Your task to perform on an android device: Open calendar and show me the first week of next month Image 0: 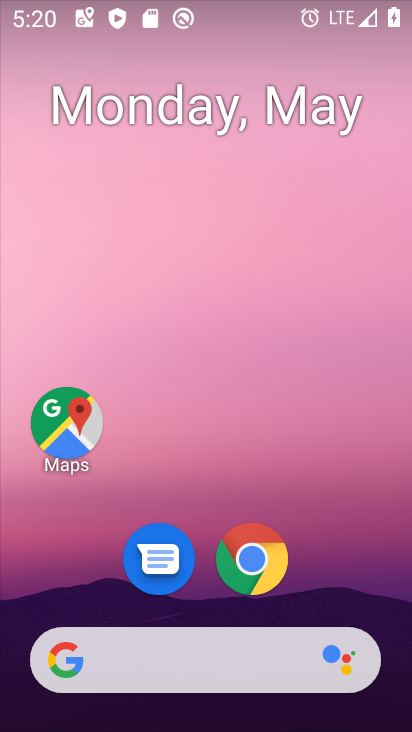
Step 0: drag from (287, 223) to (330, 2)
Your task to perform on an android device: Open calendar and show me the first week of next month Image 1: 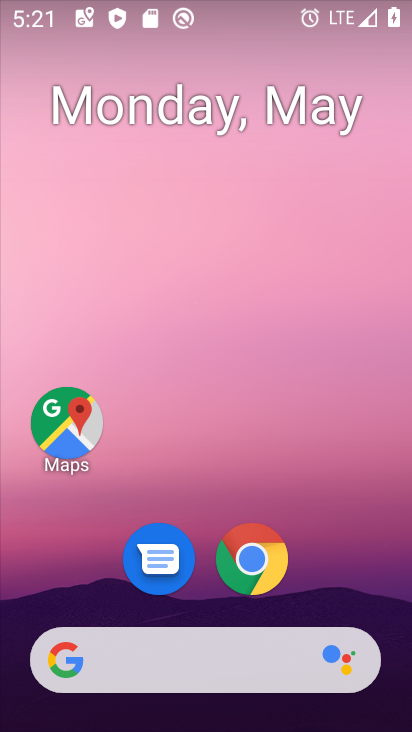
Step 1: drag from (173, 575) to (224, 6)
Your task to perform on an android device: Open calendar and show me the first week of next month Image 2: 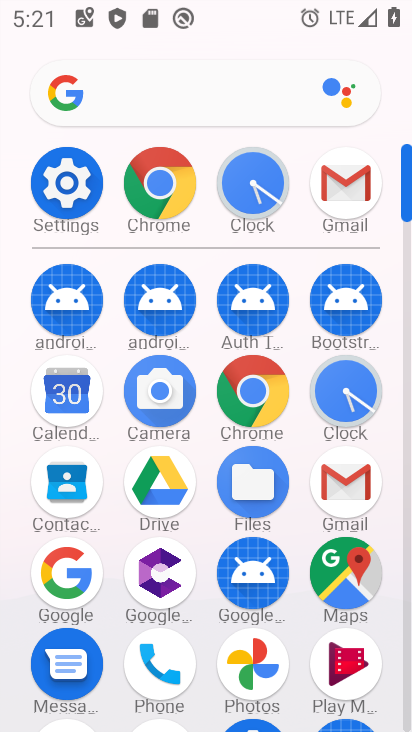
Step 2: click (63, 416)
Your task to perform on an android device: Open calendar and show me the first week of next month Image 3: 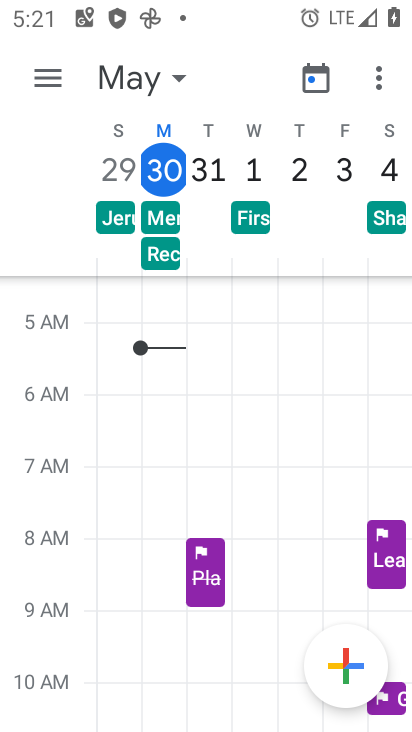
Step 3: click (47, 66)
Your task to perform on an android device: Open calendar and show me the first week of next month Image 4: 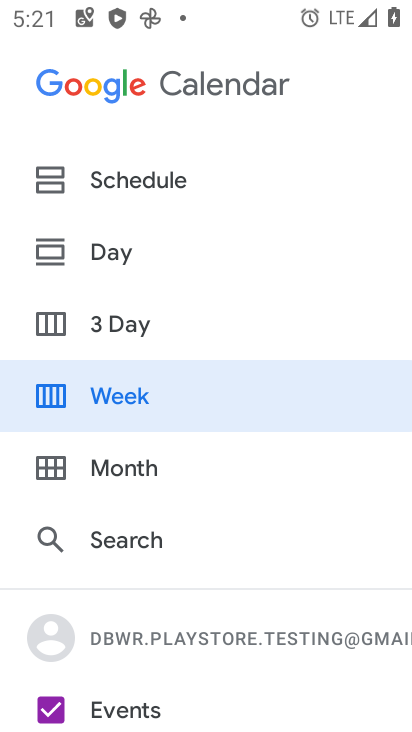
Step 4: press back button
Your task to perform on an android device: Open calendar and show me the first week of next month Image 5: 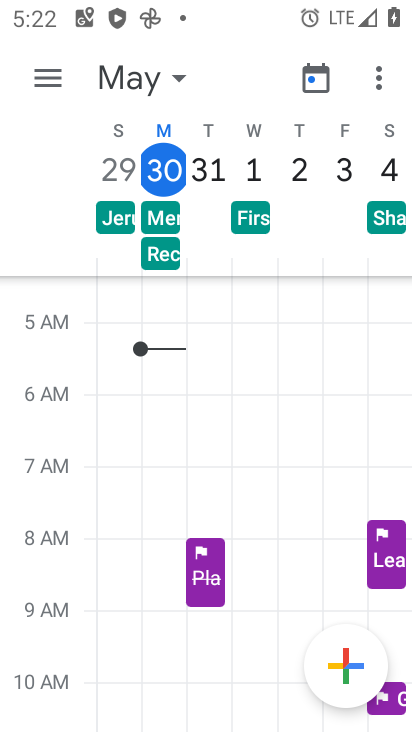
Step 5: click (176, 74)
Your task to perform on an android device: Open calendar and show me the first week of next month Image 6: 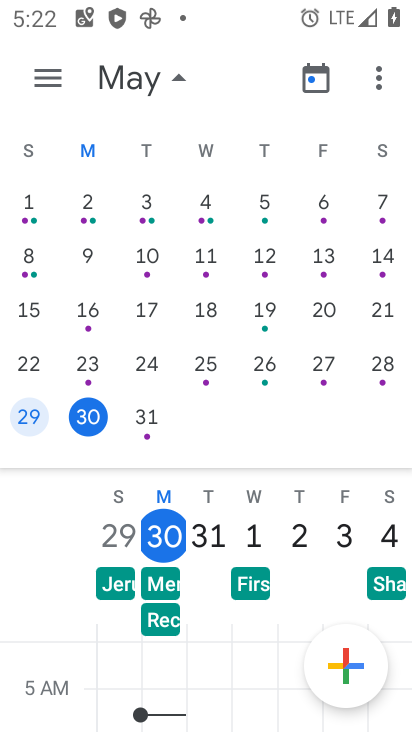
Step 6: task complete